Your task to perform on an android device: see sites visited before in the chrome app Image 0: 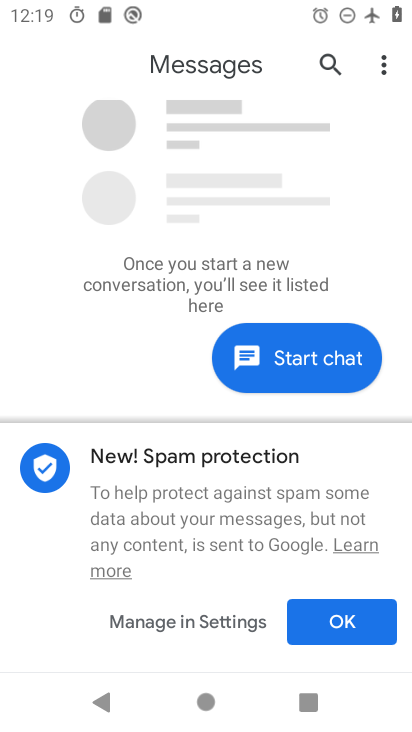
Step 0: press home button
Your task to perform on an android device: see sites visited before in the chrome app Image 1: 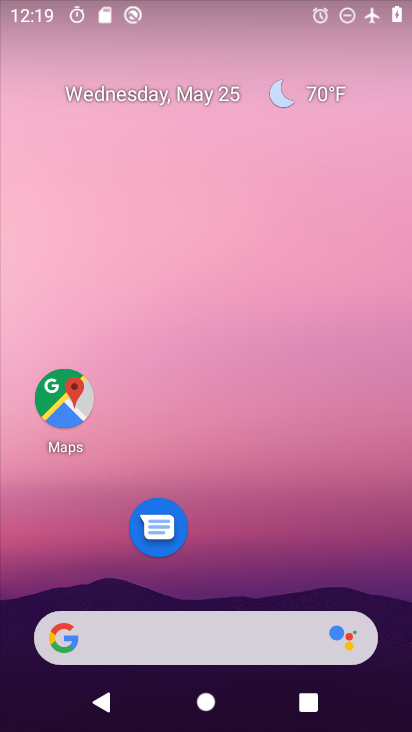
Step 1: drag from (233, 485) to (216, 118)
Your task to perform on an android device: see sites visited before in the chrome app Image 2: 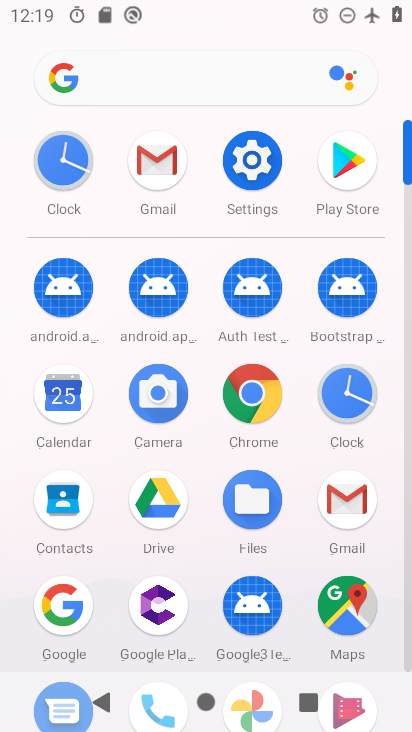
Step 2: click (251, 388)
Your task to perform on an android device: see sites visited before in the chrome app Image 3: 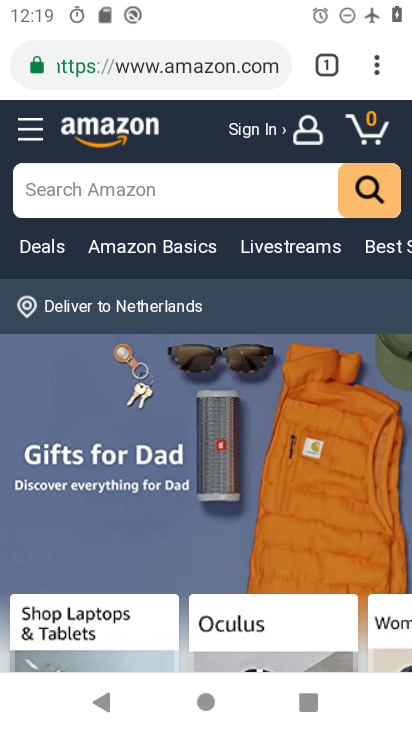
Step 3: click (366, 69)
Your task to perform on an android device: see sites visited before in the chrome app Image 4: 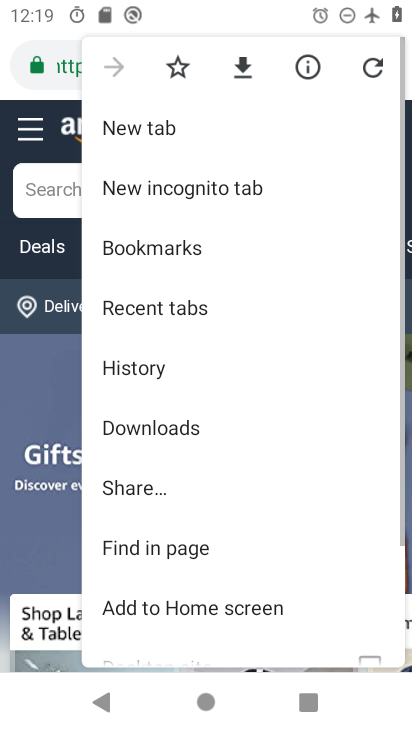
Step 4: click (187, 367)
Your task to perform on an android device: see sites visited before in the chrome app Image 5: 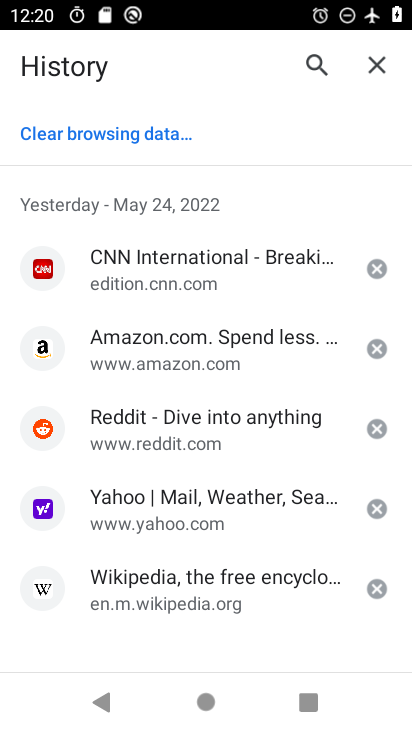
Step 5: task complete